Your task to perform on an android device: clear history in the chrome app Image 0: 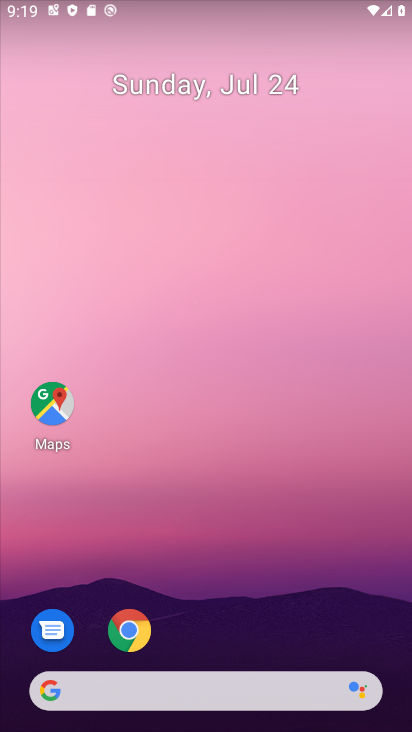
Step 0: click (134, 612)
Your task to perform on an android device: clear history in the chrome app Image 1: 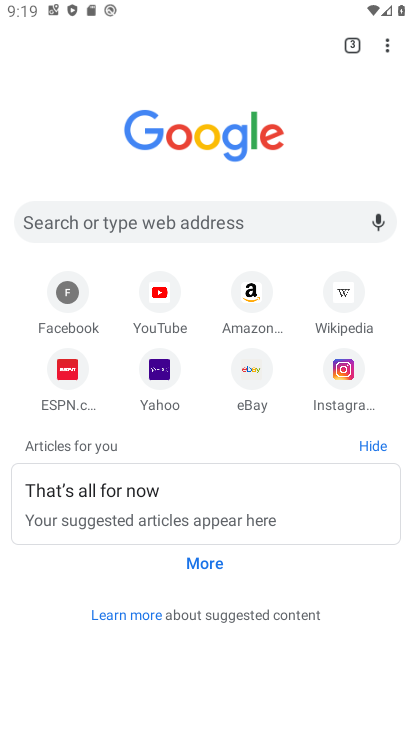
Step 1: click (394, 47)
Your task to perform on an android device: clear history in the chrome app Image 2: 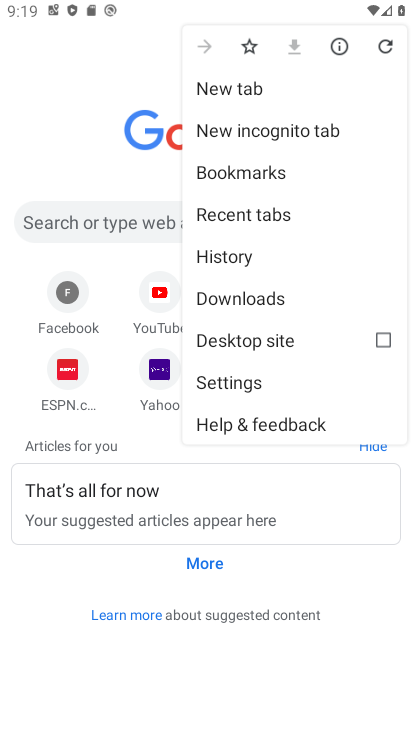
Step 2: click (237, 262)
Your task to perform on an android device: clear history in the chrome app Image 3: 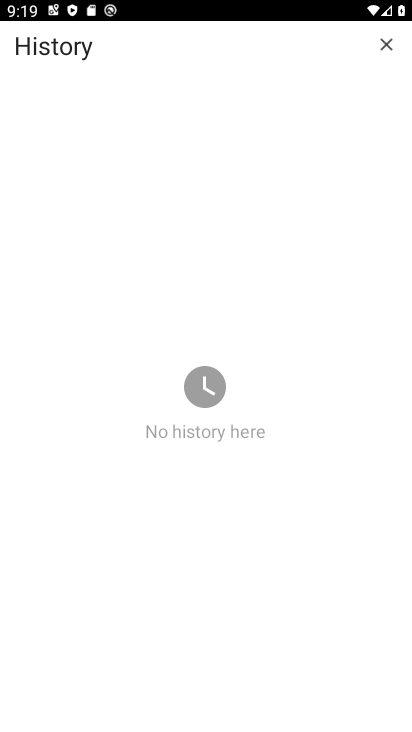
Step 3: task complete